Your task to perform on an android device: Search for Italian restaurants on Maps Image 0: 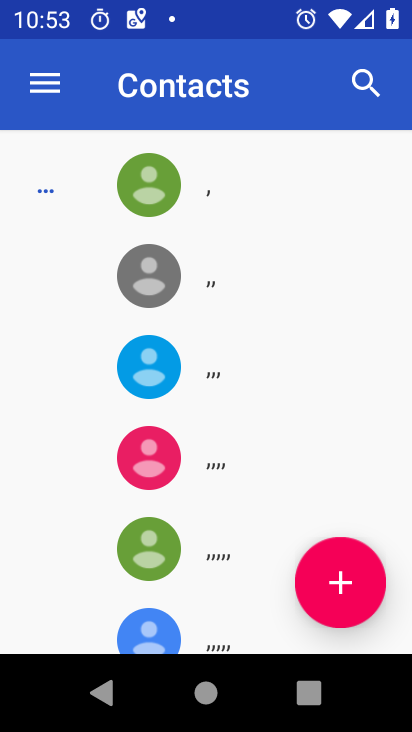
Step 0: press home button
Your task to perform on an android device: Search for Italian restaurants on Maps Image 1: 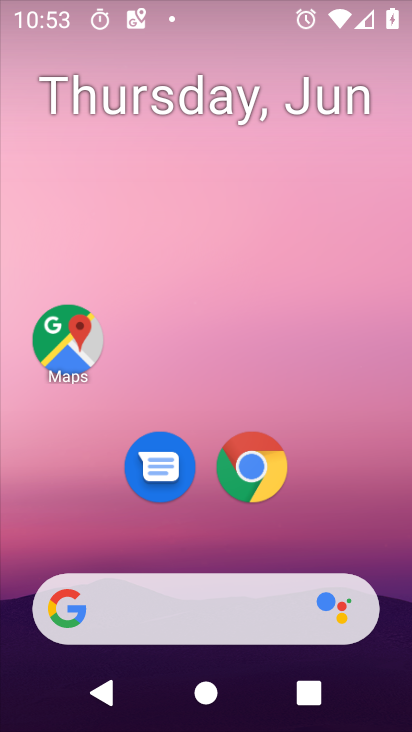
Step 1: drag from (35, 530) to (212, 171)
Your task to perform on an android device: Search for Italian restaurants on Maps Image 2: 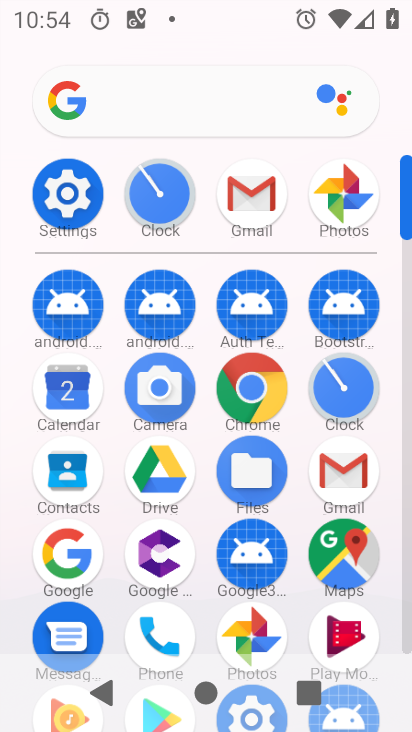
Step 2: drag from (17, 567) to (267, 160)
Your task to perform on an android device: Search for Italian restaurants on Maps Image 3: 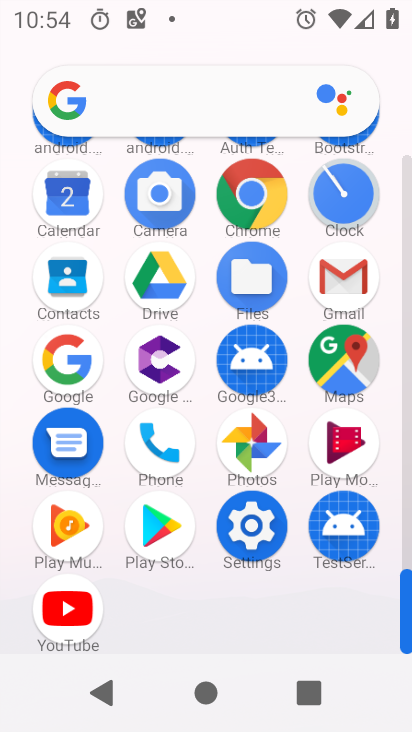
Step 3: click (331, 392)
Your task to perform on an android device: Search for Italian restaurants on Maps Image 4: 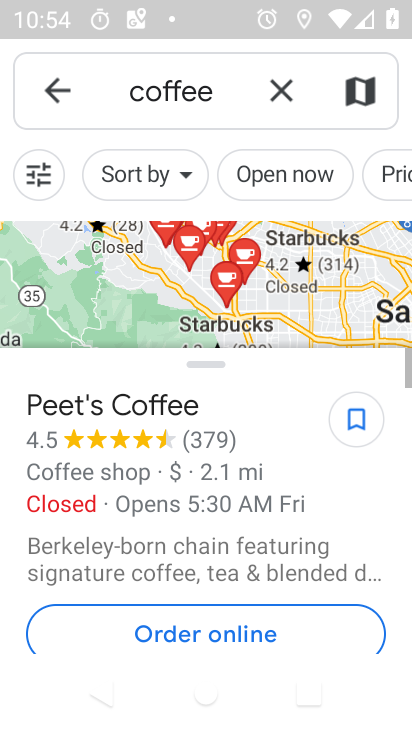
Step 4: click (288, 89)
Your task to perform on an android device: Search for Italian restaurants on Maps Image 5: 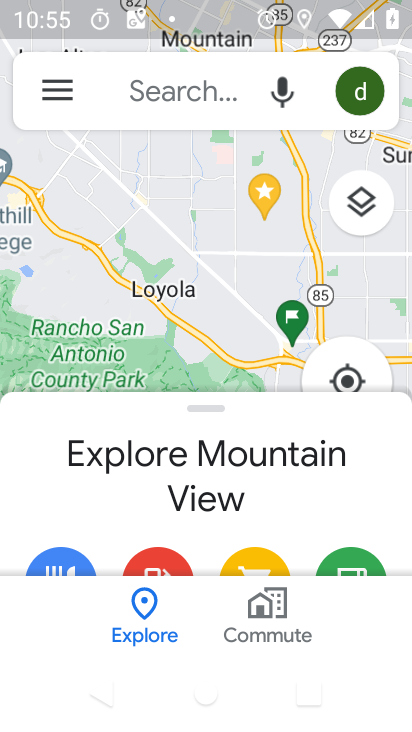
Step 5: click (212, 97)
Your task to perform on an android device: Search for Italian restaurants on Maps Image 6: 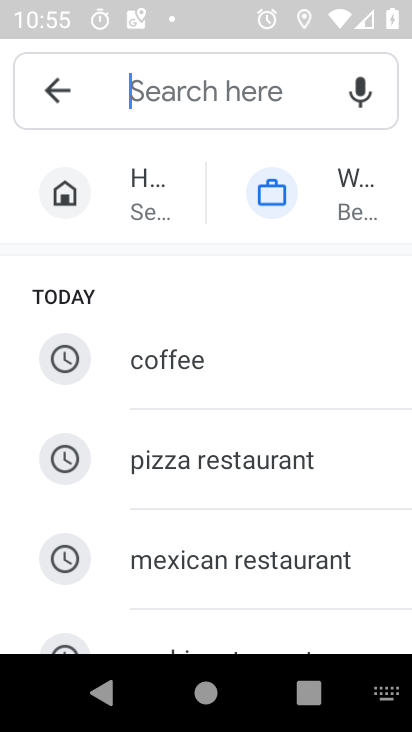
Step 6: drag from (14, 548) to (208, 146)
Your task to perform on an android device: Search for Italian restaurants on Maps Image 7: 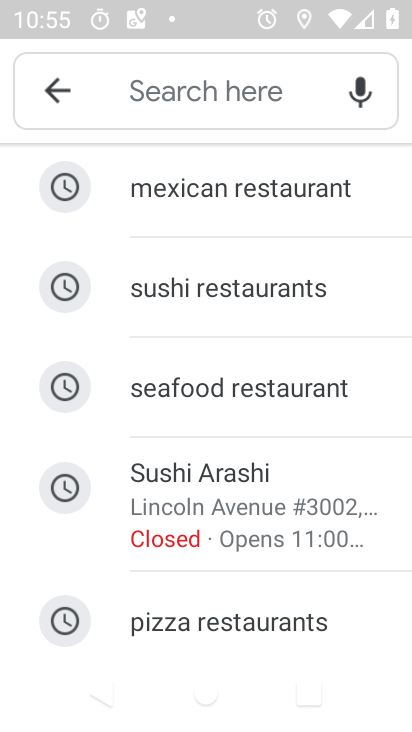
Step 7: drag from (79, 622) to (310, 162)
Your task to perform on an android device: Search for Italian restaurants on Maps Image 8: 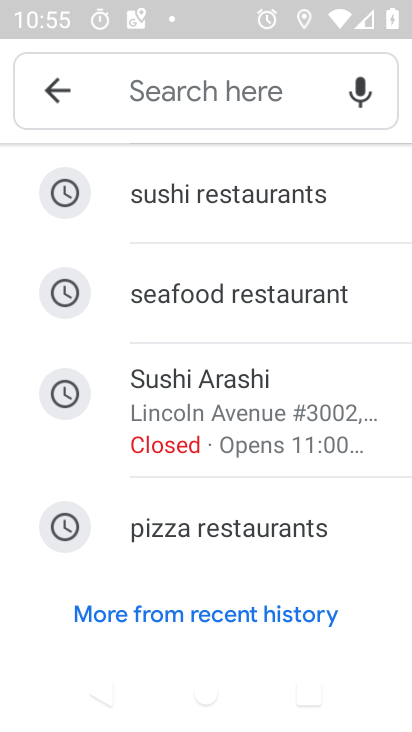
Step 8: drag from (274, 166) to (269, 633)
Your task to perform on an android device: Search for Italian restaurants on Maps Image 9: 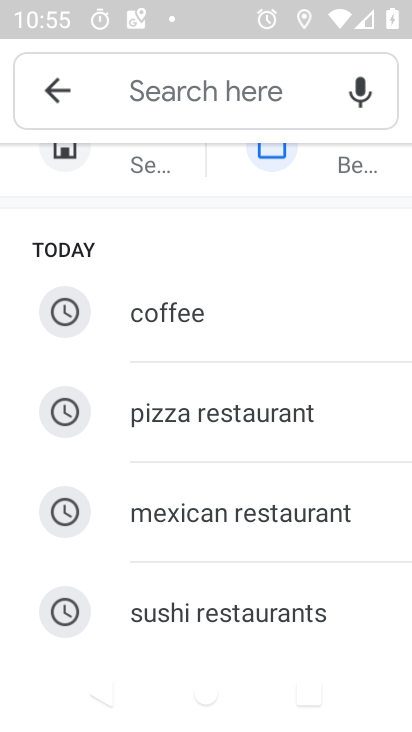
Step 9: drag from (243, 289) to (249, 639)
Your task to perform on an android device: Search for Italian restaurants on Maps Image 10: 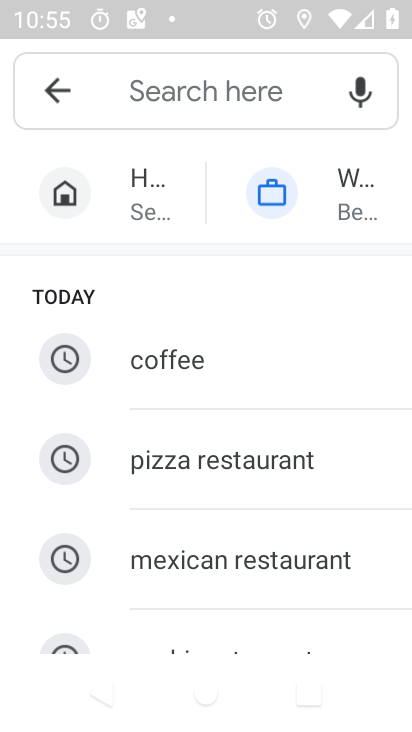
Step 10: click (134, 81)
Your task to perform on an android device: Search for Italian restaurants on Maps Image 11: 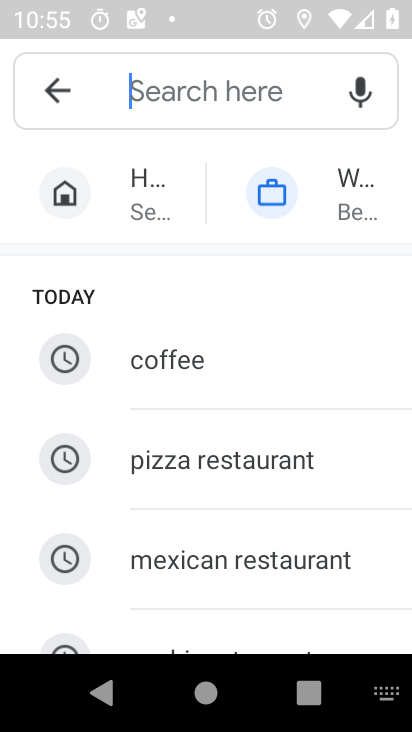
Step 11: type "Italian restaurants"
Your task to perform on an android device: Search for Italian restaurants on Maps Image 12: 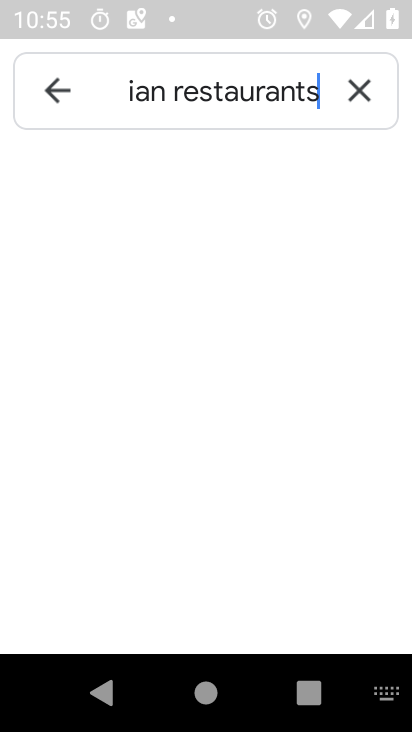
Step 12: type ""
Your task to perform on an android device: Search for Italian restaurants on Maps Image 13: 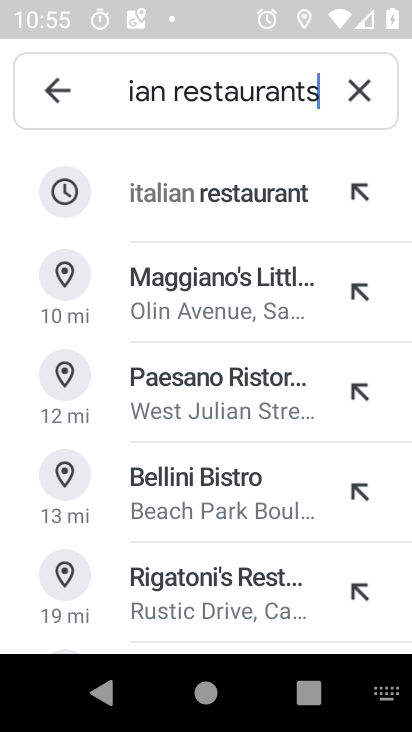
Step 13: click (261, 191)
Your task to perform on an android device: Search for Italian restaurants on Maps Image 14: 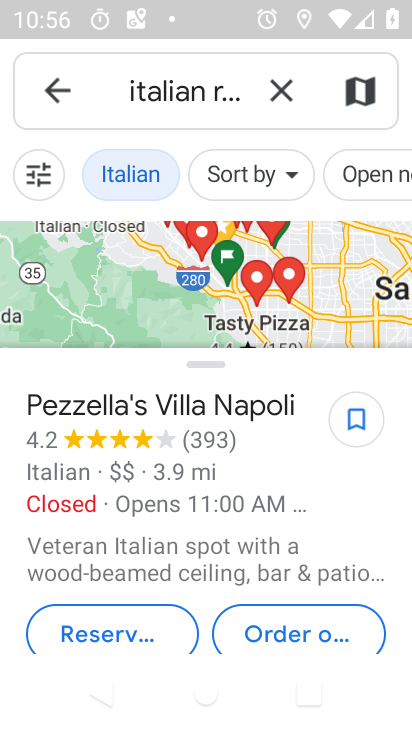
Step 14: task complete